Your task to perform on an android device: What's on Reddit this week Image 0: 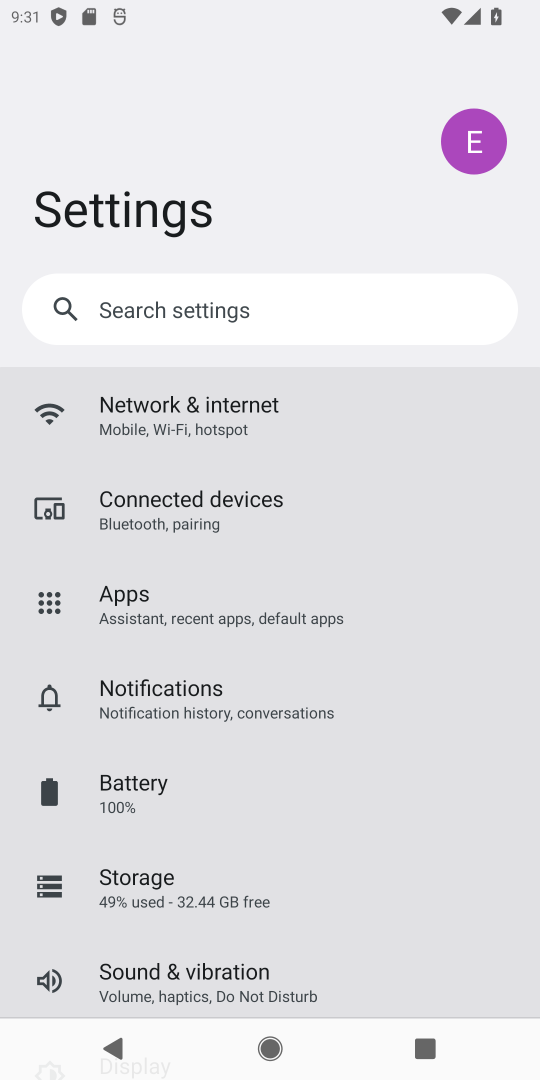
Step 0: press home button
Your task to perform on an android device: What's on Reddit this week Image 1: 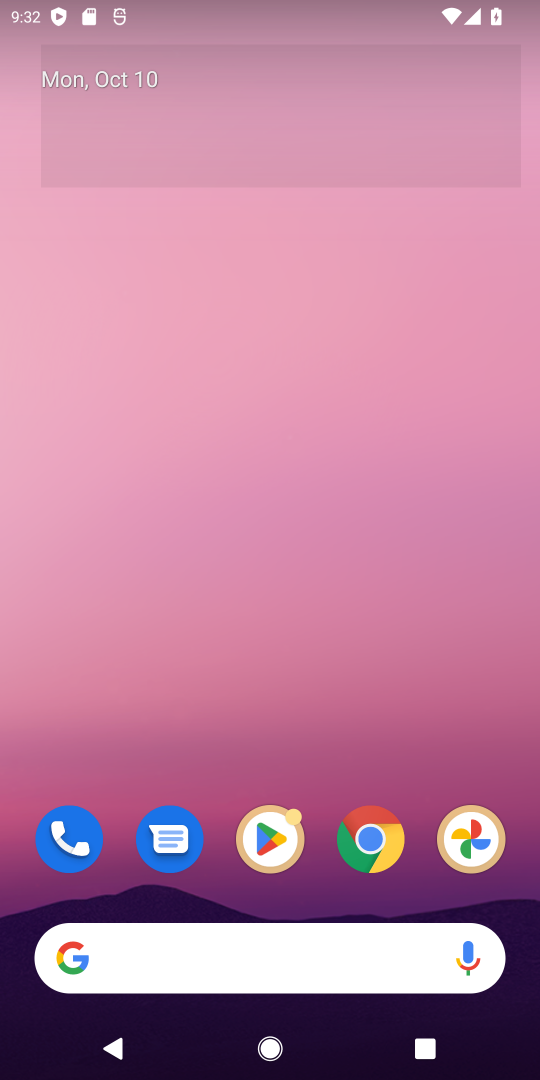
Step 1: drag from (322, 909) to (298, 126)
Your task to perform on an android device: What's on Reddit this week Image 2: 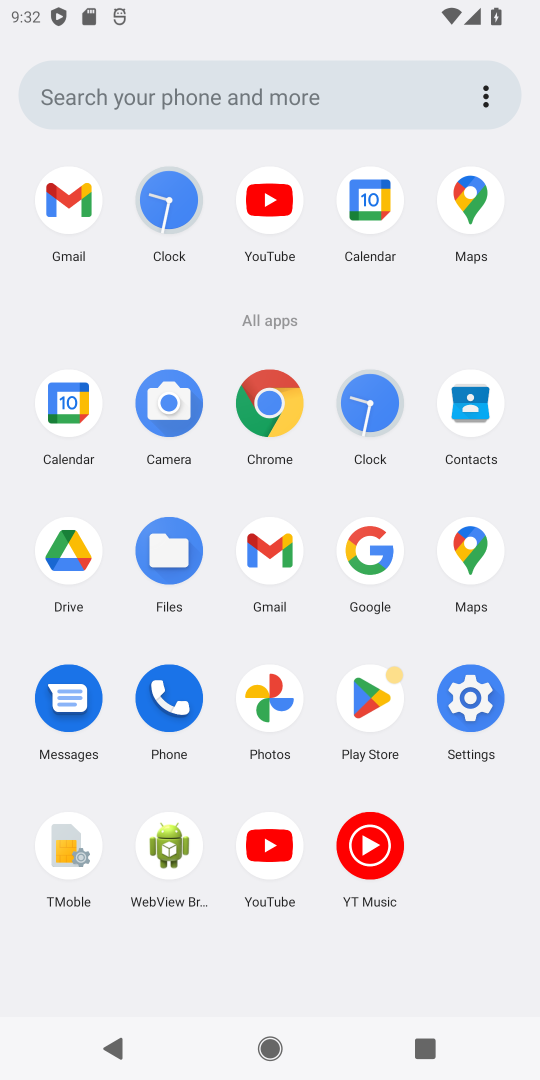
Step 2: click (272, 397)
Your task to perform on an android device: What's on Reddit this week Image 3: 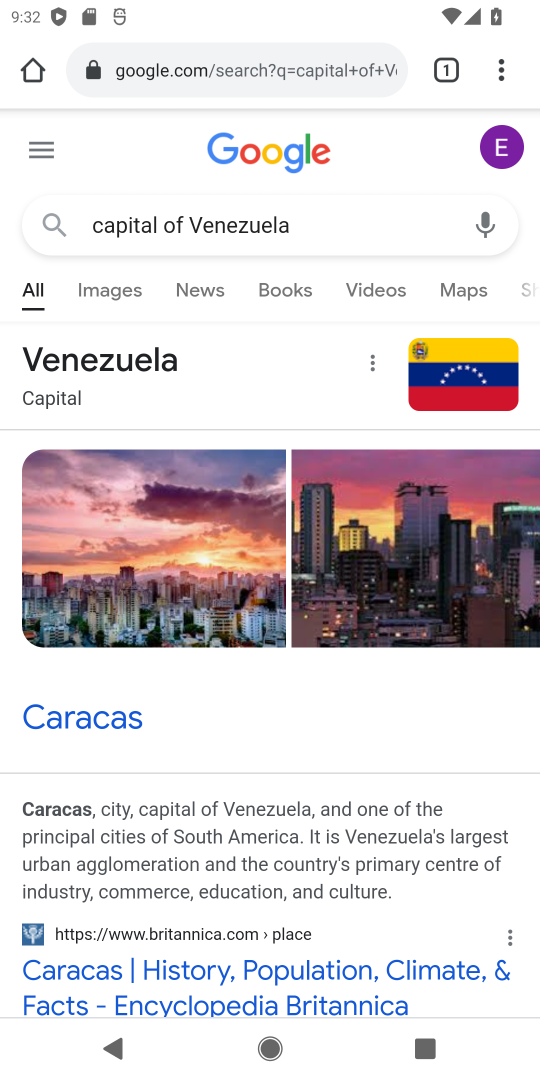
Step 3: click (261, 88)
Your task to perform on an android device: What's on Reddit this week Image 4: 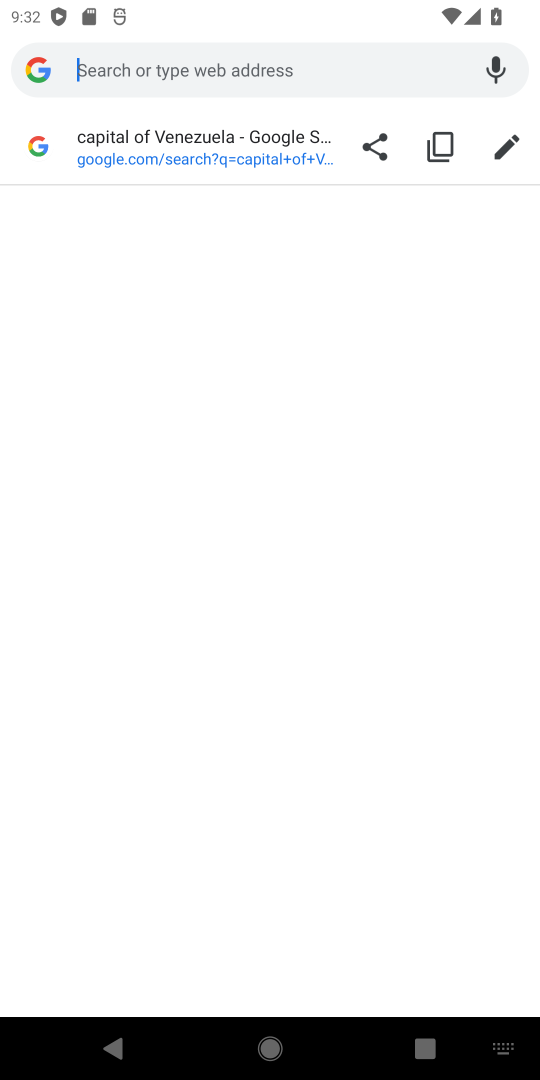
Step 4: type "reddit this week"
Your task to perform on an android device: What's on Reddit this week Image 5: 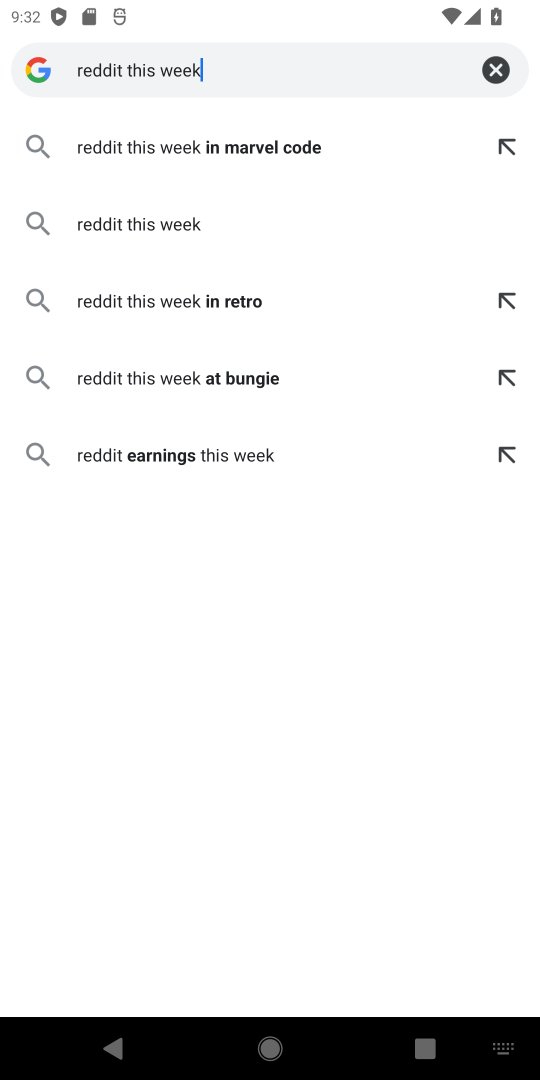
Step 5: press enter
Your task to perform on an android device: What's on Reddit this week Image 6: 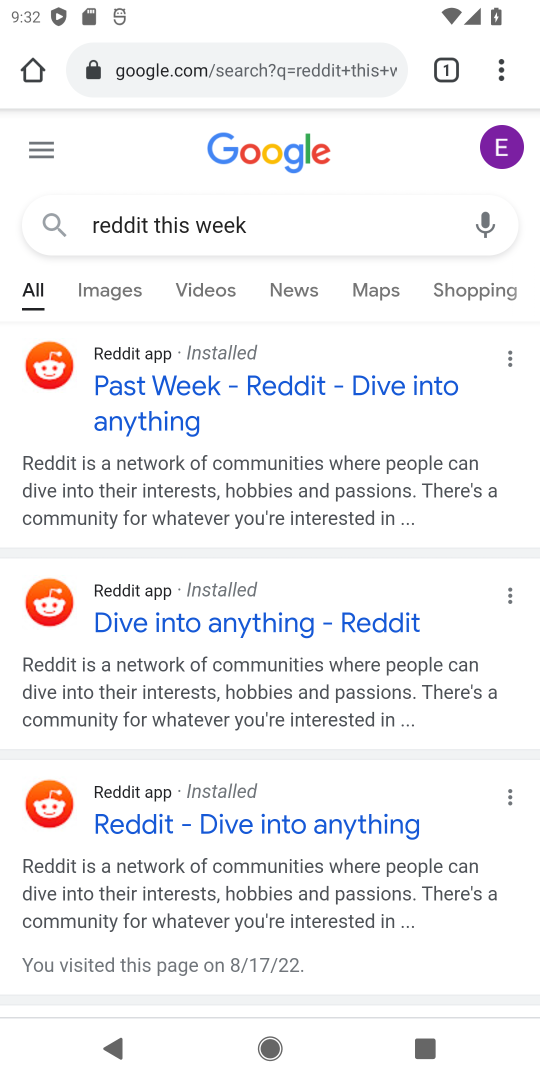
Step 6: click (173, 389)
Your task to perform on an android device: What's on Reddit this week Image 7: 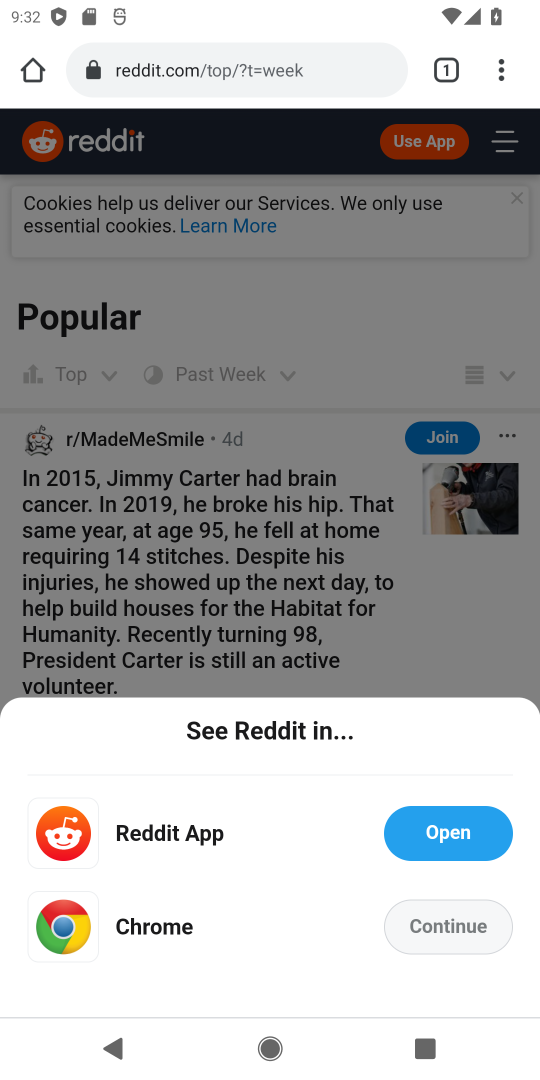
Step 7: drag from (226, 589) to (275, 209)
Your task to perform on an android device: What's on Reddit this week Image 8: 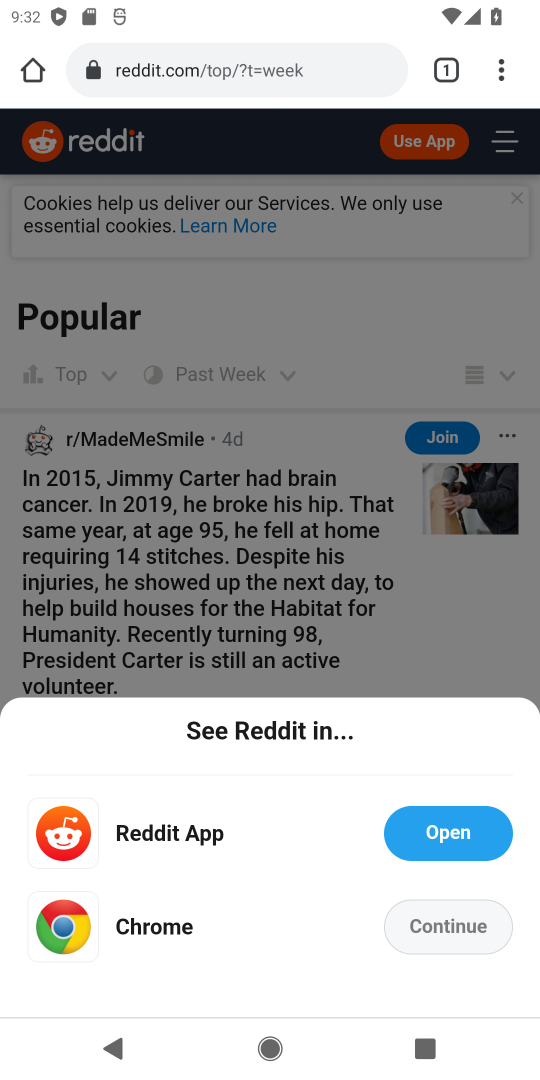
Step 8: click (430, 926)
Your task to perform on an android device: What's on Reddit this week Image 9: 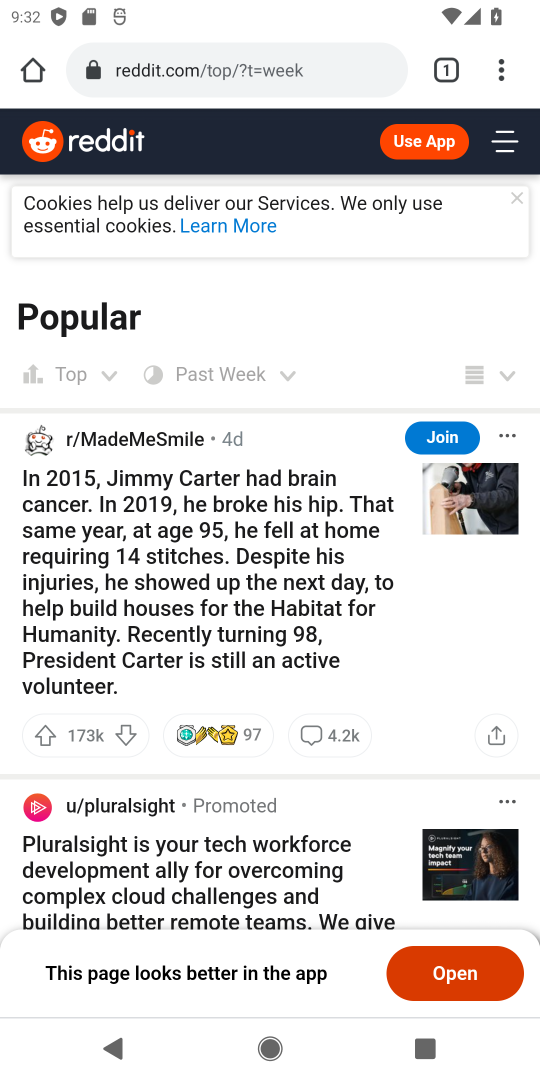
Step 9: task complete